Your task to perform on an android device: Search for Italian restaurants on Maps Image 0: 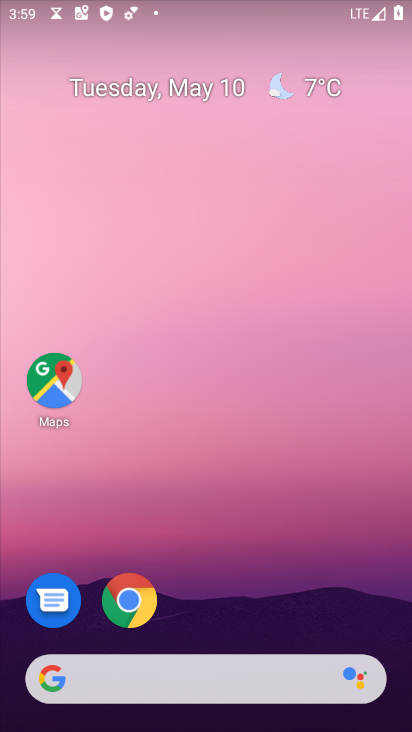
Step 0: click (48, 382)
Your task to perform on an android device: Search for Italian restaurants on Maps Image 1: 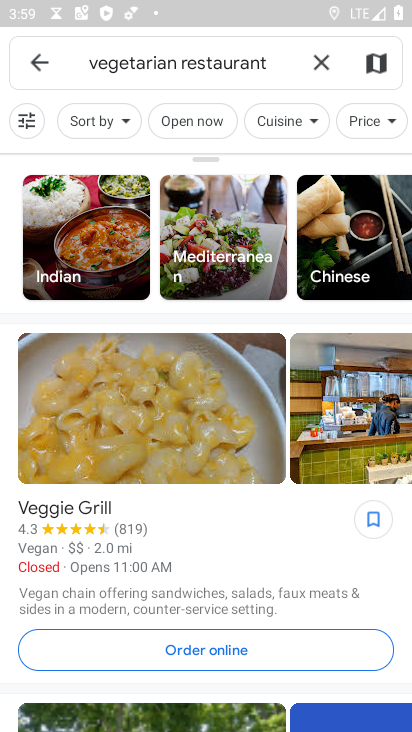
Step 1: click (179, 59)
Your task to perform on an android device: Search for Italian restaurants on Maps Image 2: 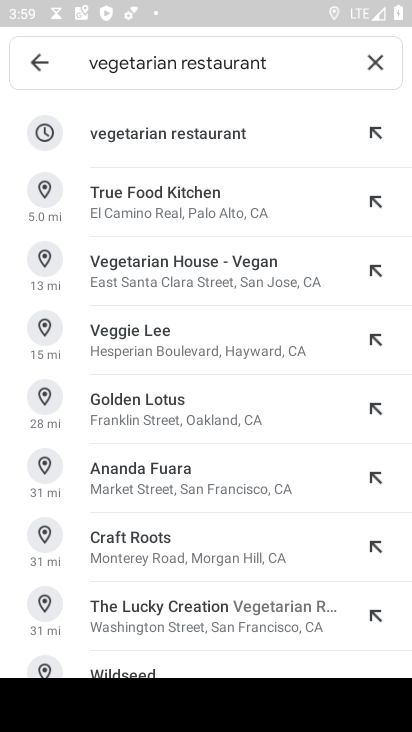
Step 2: click (184, 59)
Your task to perform on an android device: Search for Italian restaurants on Maps Image 3: 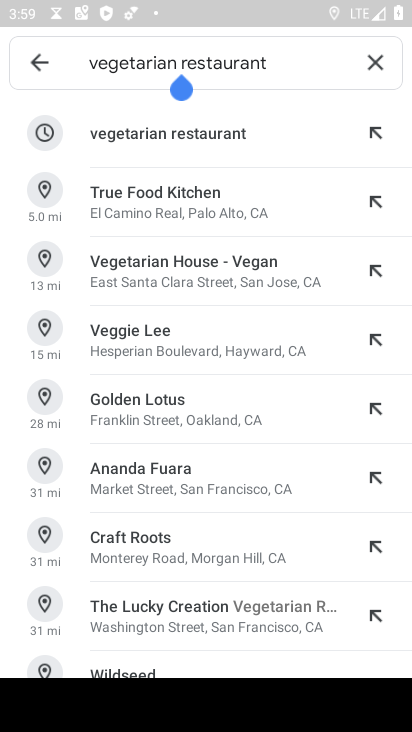
Step 3: click (172, 58)
Your task to perform on an android device: Search for Italian restaurants on Maps Image 4: 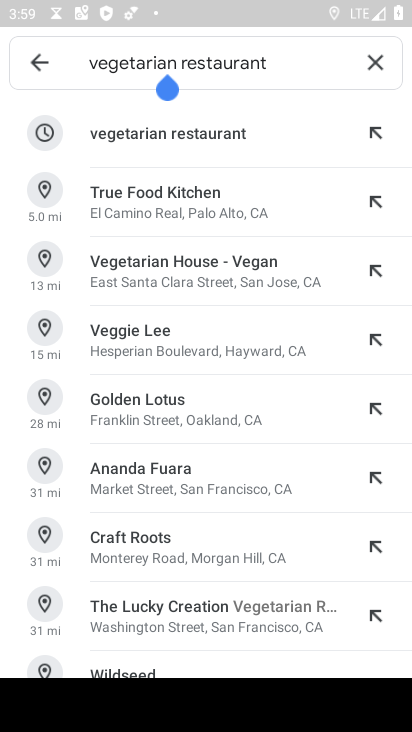
Step 4: click (172, 58)
Your task to perform on an android device: Search for Italian restaurants on Maps Image 5: 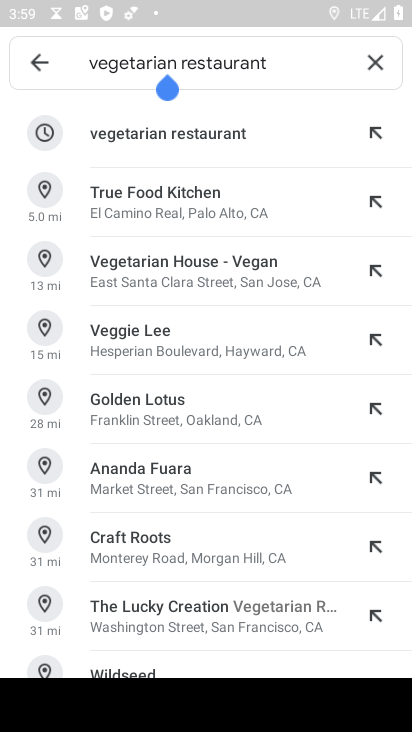
Step 5: click (380, 51)
Your task to perform on an android device: Search for Italian restaurants on Maps Image 6: 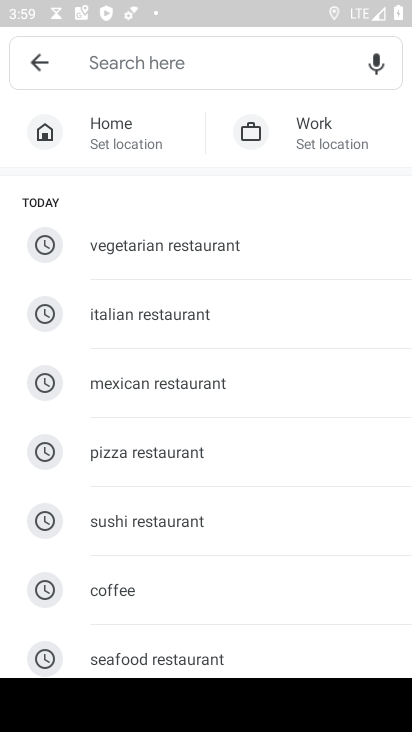
Step 6: click (200, 319)
Your task to perform on an android device: Search for Italian restaurants on Maps Image 7: 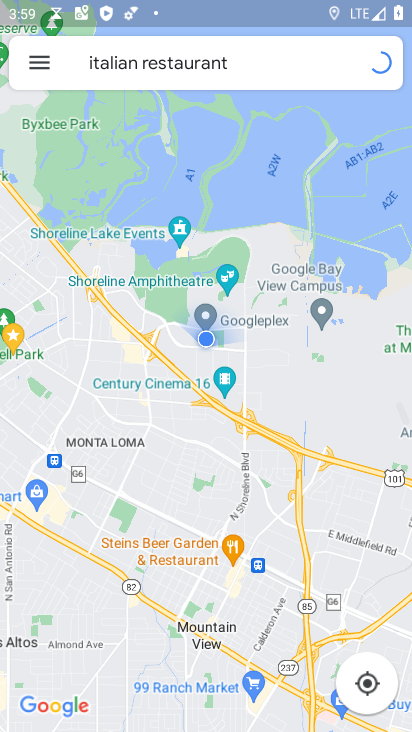
Step 7: task complete